Your task to perform on an android device: Go to privacy settings Image 0: 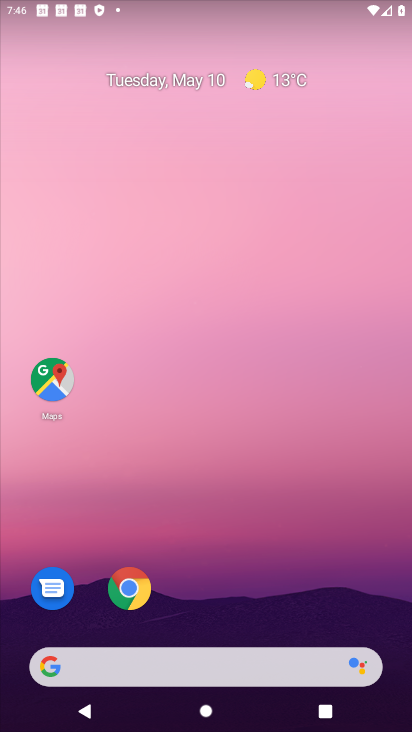
Step 0: click (125, 584)
Your task to perform on an android device: Go to privacy settings Image 1: 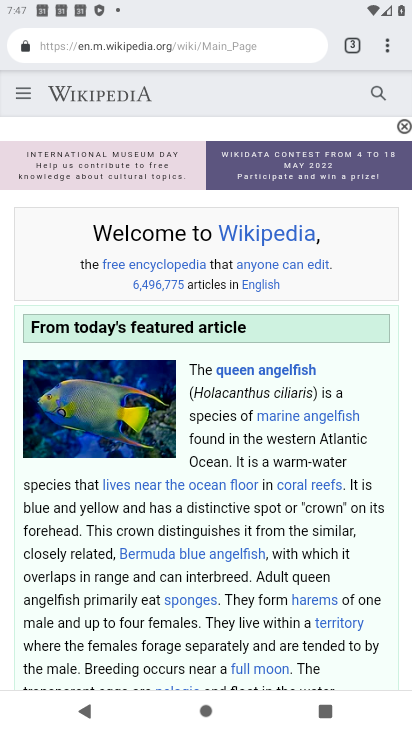
Step 1: click (378, 32)
Your task to perform on an android device: Go to privacy settings Image 2: 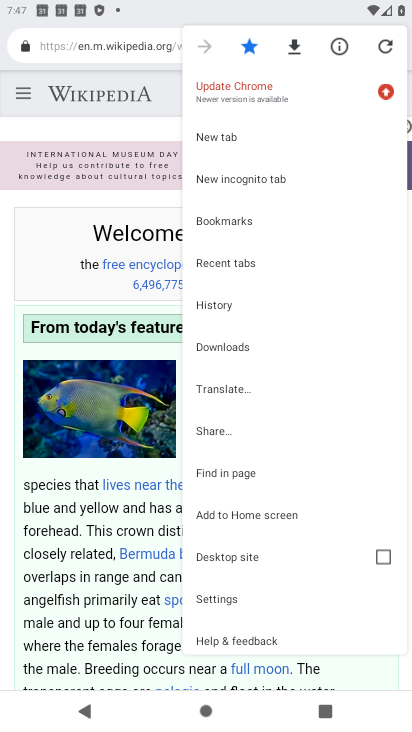
Step 2: click (255, 596)
Your task to perform on an android device: Go to privacy settings Image 3: 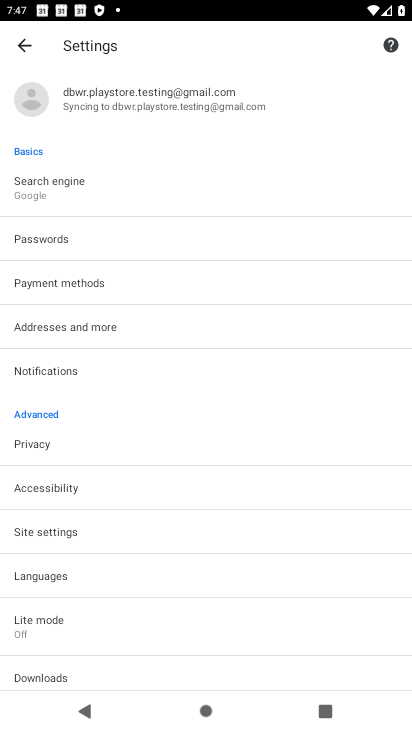
Step 3: click (25, 453)
Your task to perform on an android device: Go to privacy settings Image 4: 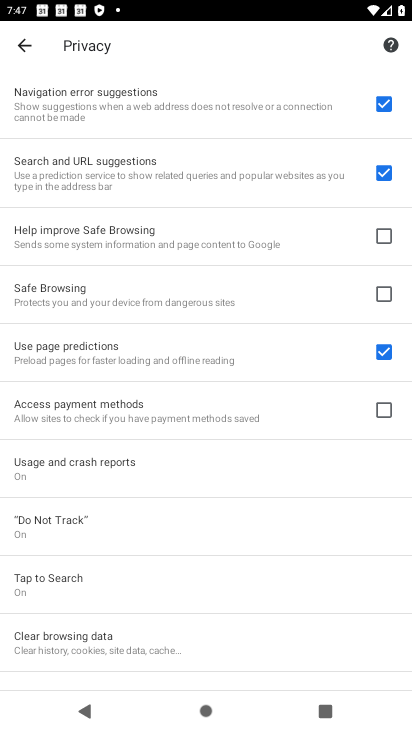
Step 4: task complete